Your task to perform on an android device: How do I get to the nearest grocery store? Image 0: 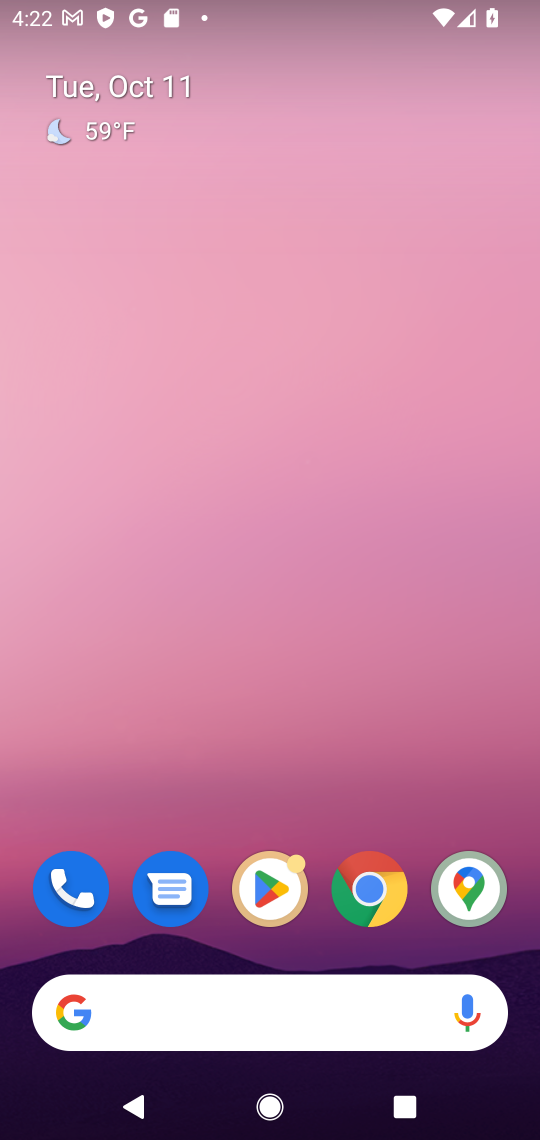
Step 0: drag from (300, 1013) to (300, 299)
Your task to perform on an android device: How do I get to the nearest grocery store? Image 1: 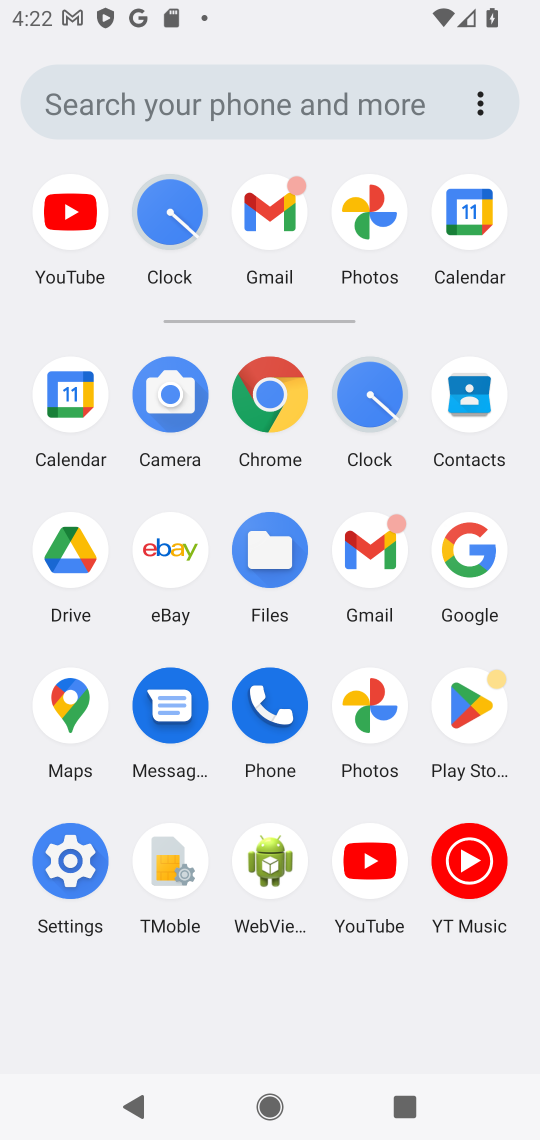
Step 1: click (469, 536)
Your task to perform on an android device: How do I get to the nearest grocery store? Image 2: 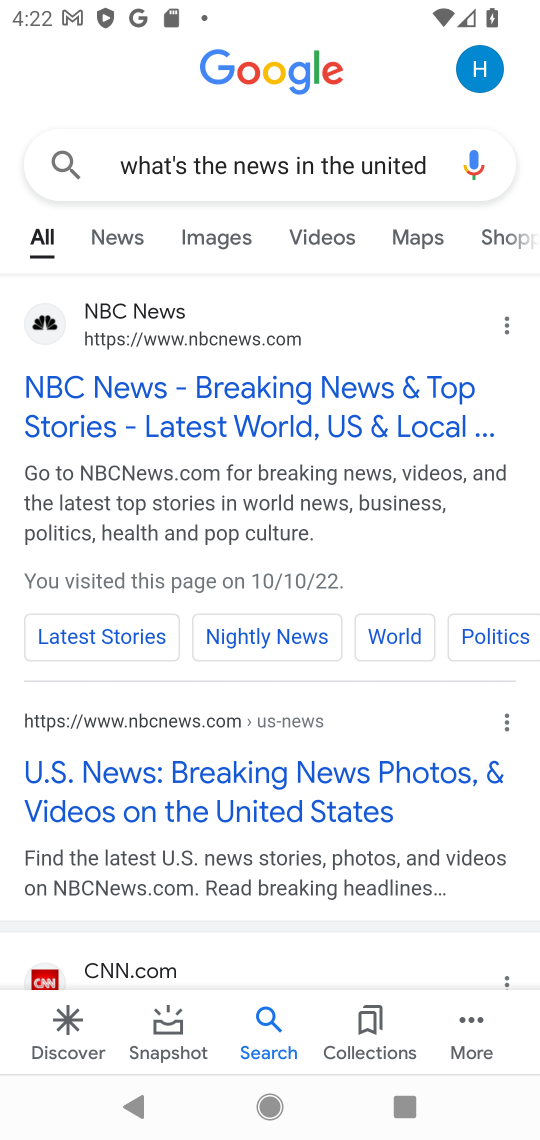
Step 2: click (254, 157)
Your task to perform on an android device: How do I get to the nearest grocery store? Image 3: 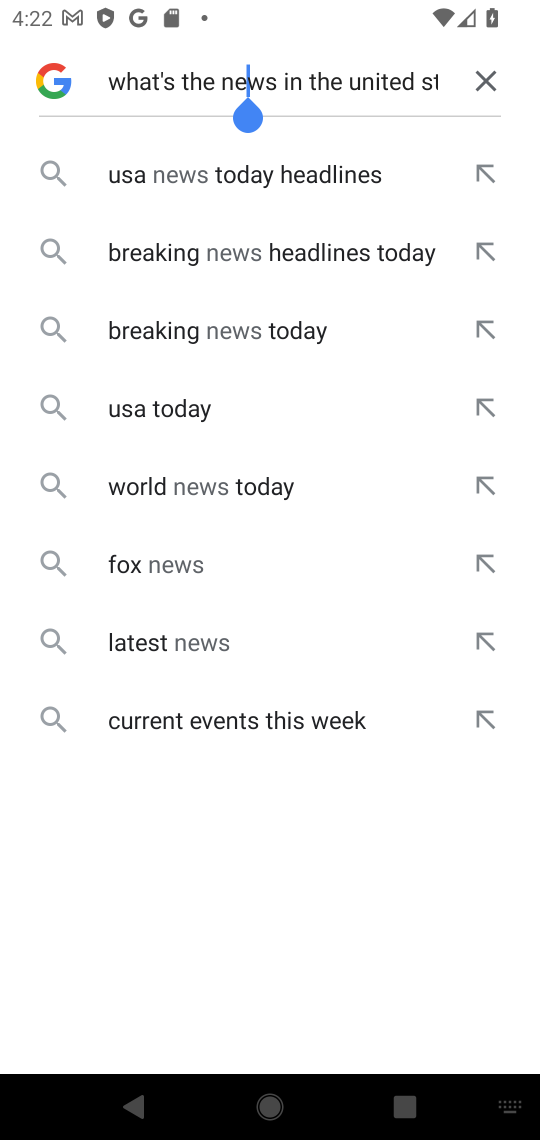
Step 3: click (490, 67)
Your task to perform on an android device: How do I get to the nearest grocery store? Image 4: 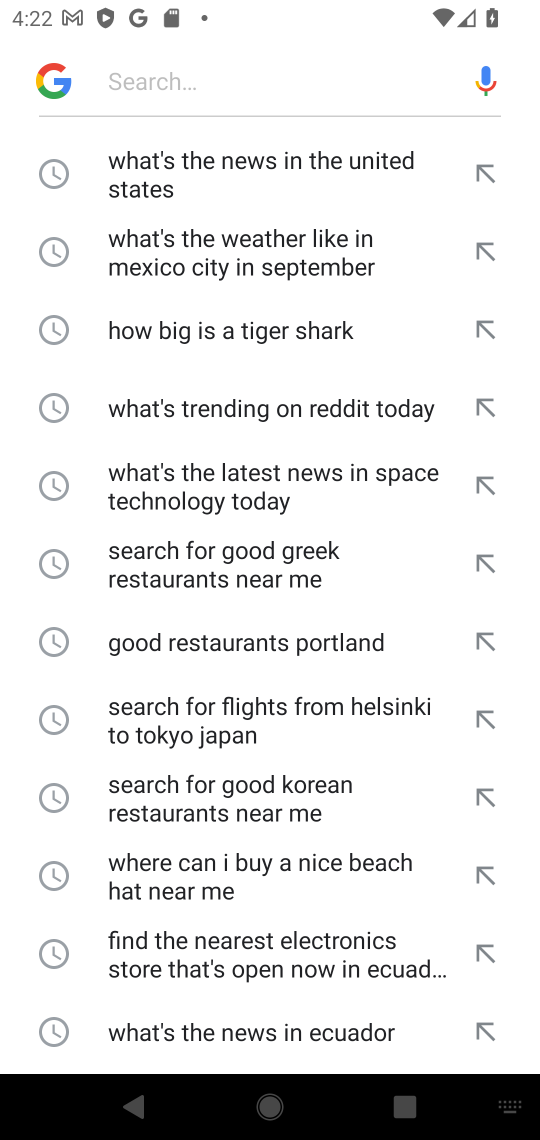
Step 4: click (120, 67)
Your task to perform on an android device: How do I get to the nearest grocery store? Image 5: 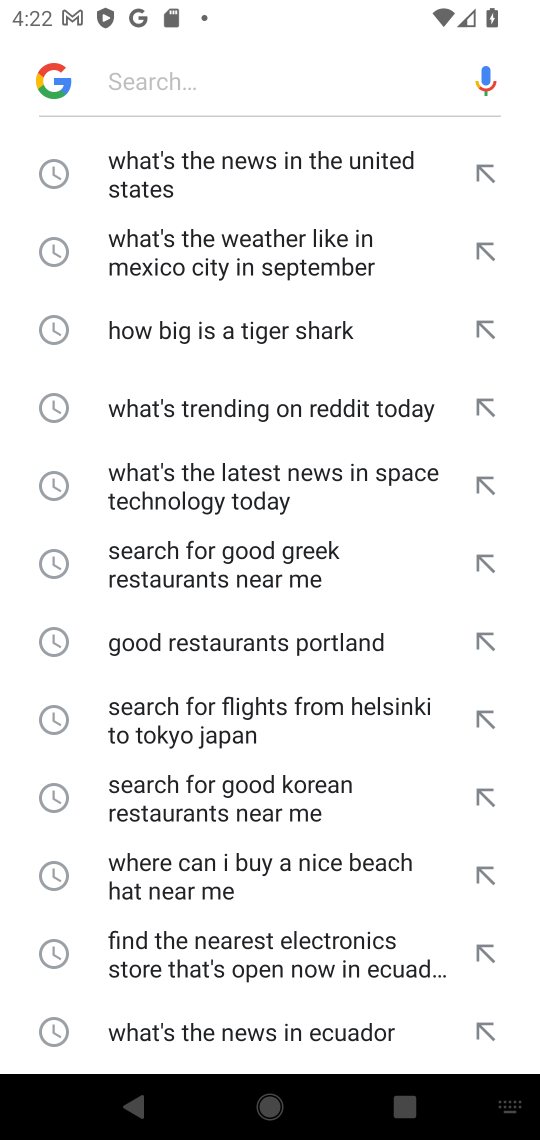
Step 5: type "How do I get to the nearest grocery store?"
Your task to perform on an android device: How do I get to the nearest grocery store? Image 6: 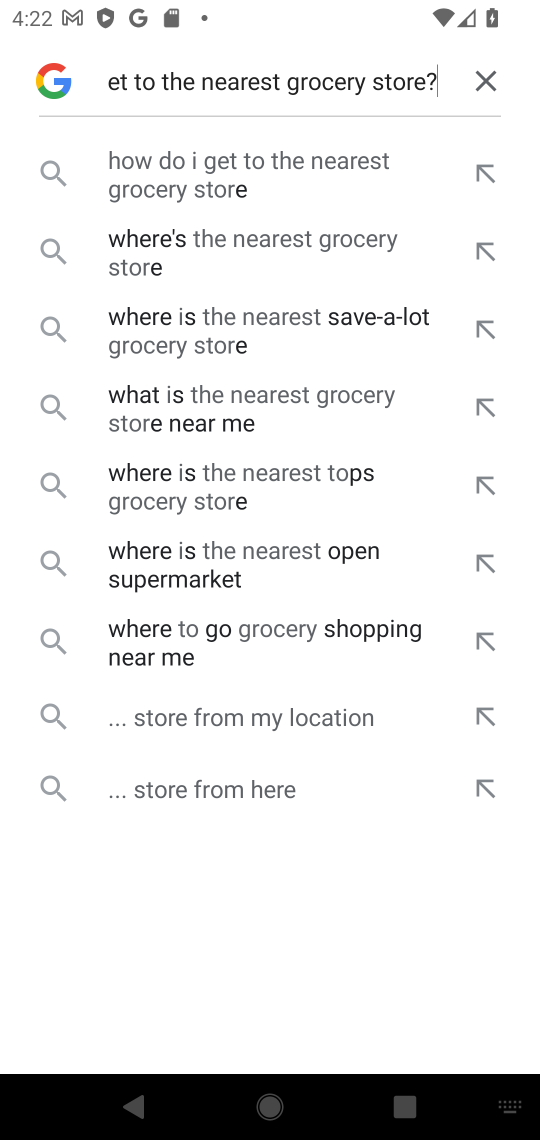
Step 6: type "How do I get to the nearest grocery store "
Your task to perform on an android device: How do I get to the nearest grocery store? Image 7: 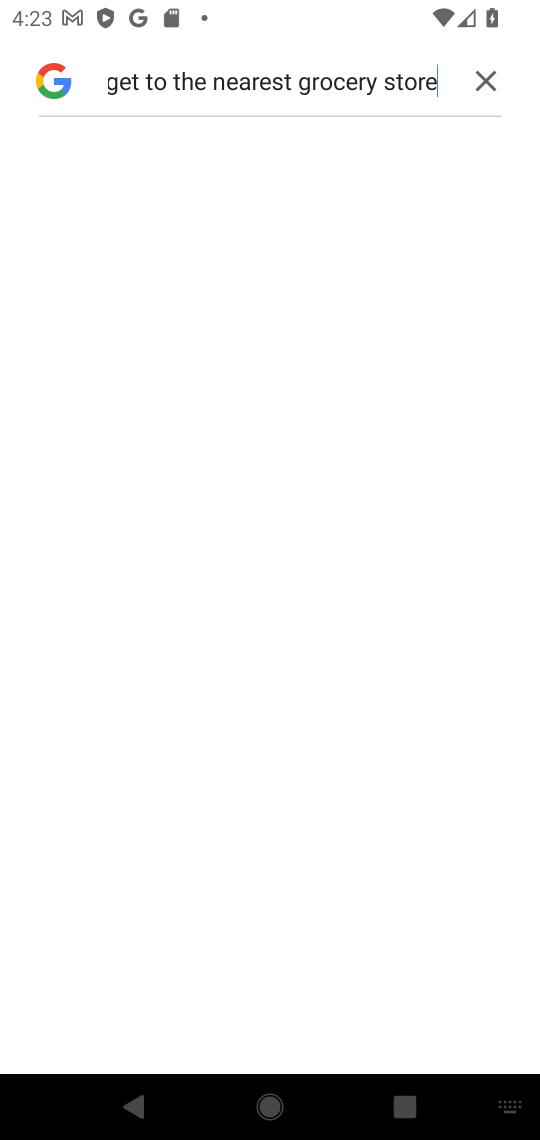
Step 7: click (232, 187)
Your task to perform on an android device: How do I get to the nearest grocery store? Image 8: 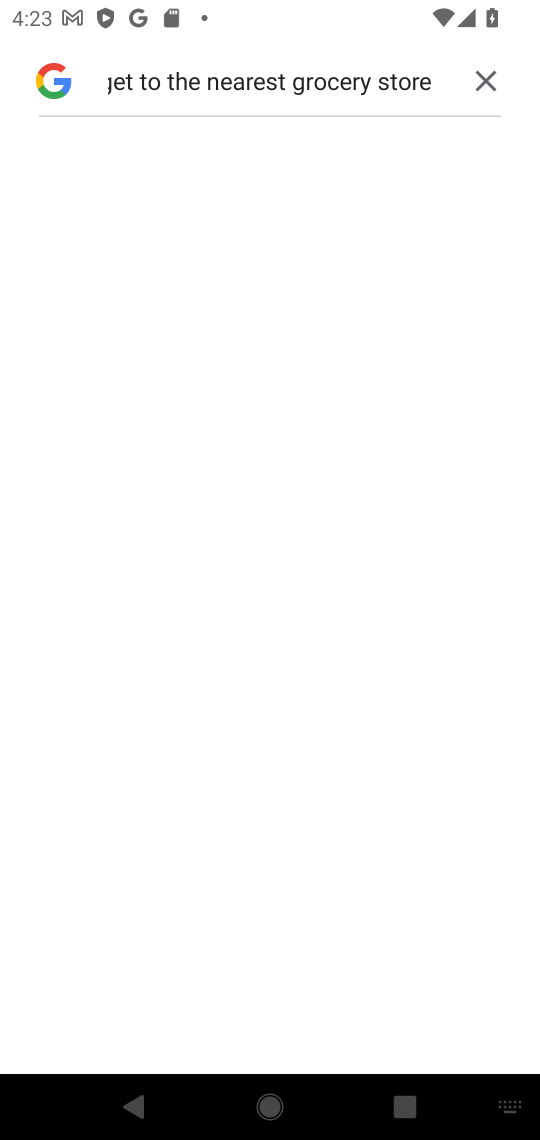
Step 8: click (405, 201)
Your task to perform on an android device: How do I get to the nearest grocery store? Image 9: 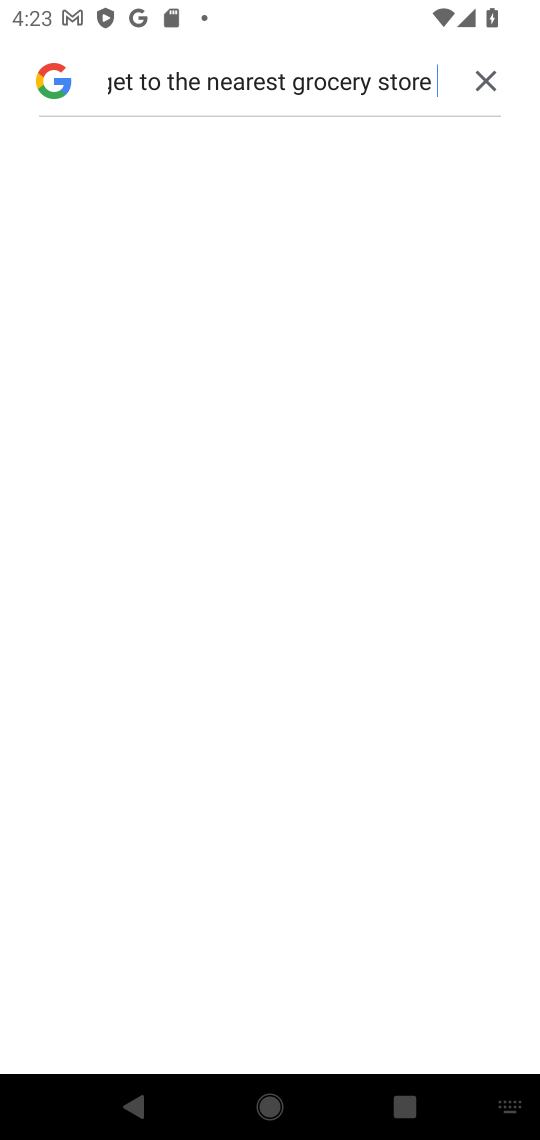
Step 9: click (311, 103)
Your task to perform on an android device: How do I get to the nearest grocery store? Image 10: 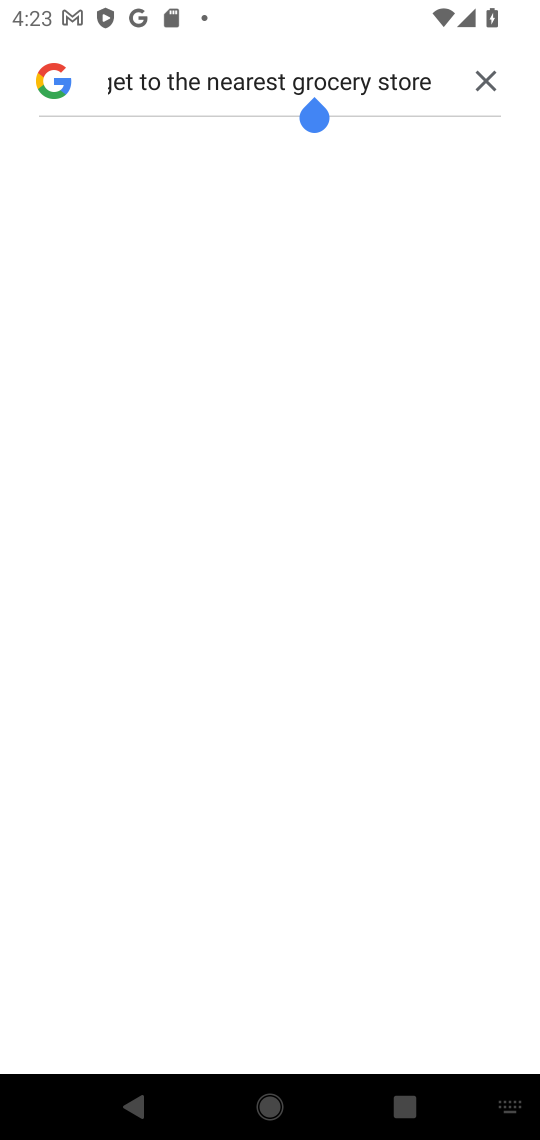
Step 10: click (486, 86)
Your task to perform on an android device: How do I get to the nearest grocery store? Image 11: 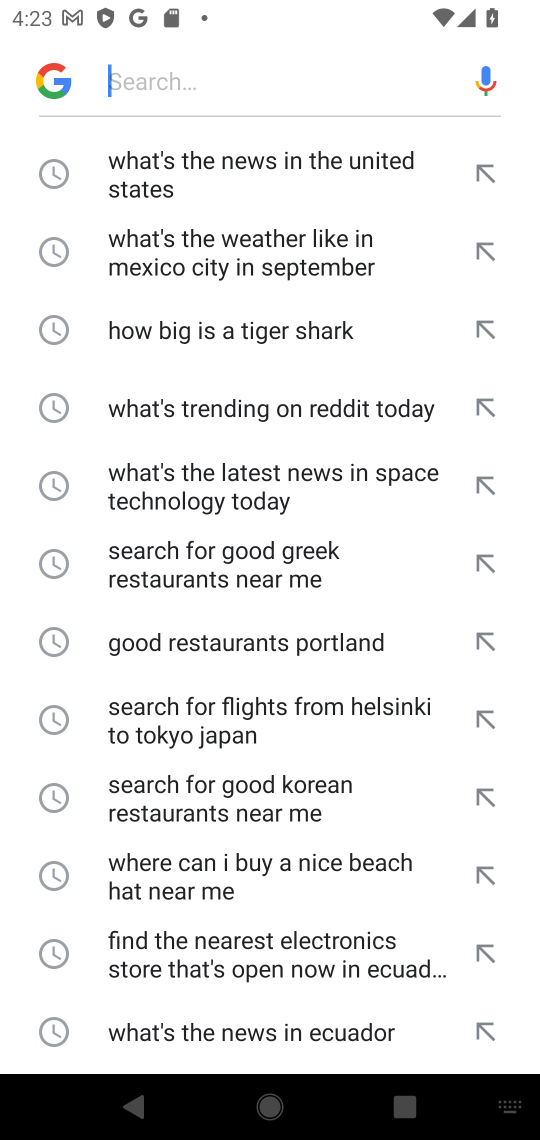
Step 11: click (248, 73)
Your task to perform on an android device: How do I get to the nearest grocery store? Image 12: 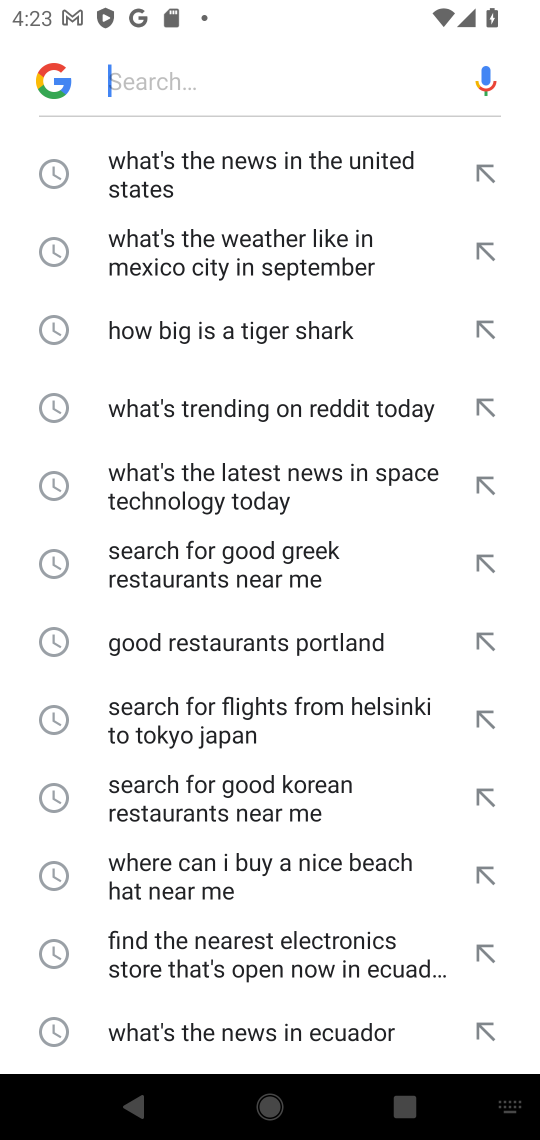
Step 12: type "the nearest grocery store "
Your task to perform on an android device: How do I get to the nearest grocery store? Image 13: 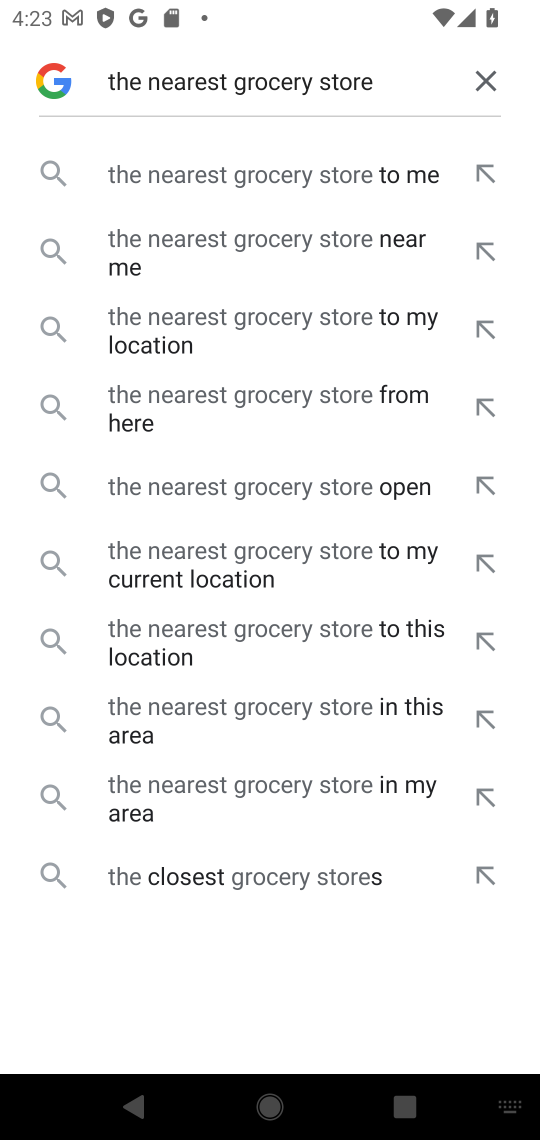
Step 13: click (252, 191)
Your task to perform on an android device: How do I get to the nearest grocery store? Image 14: 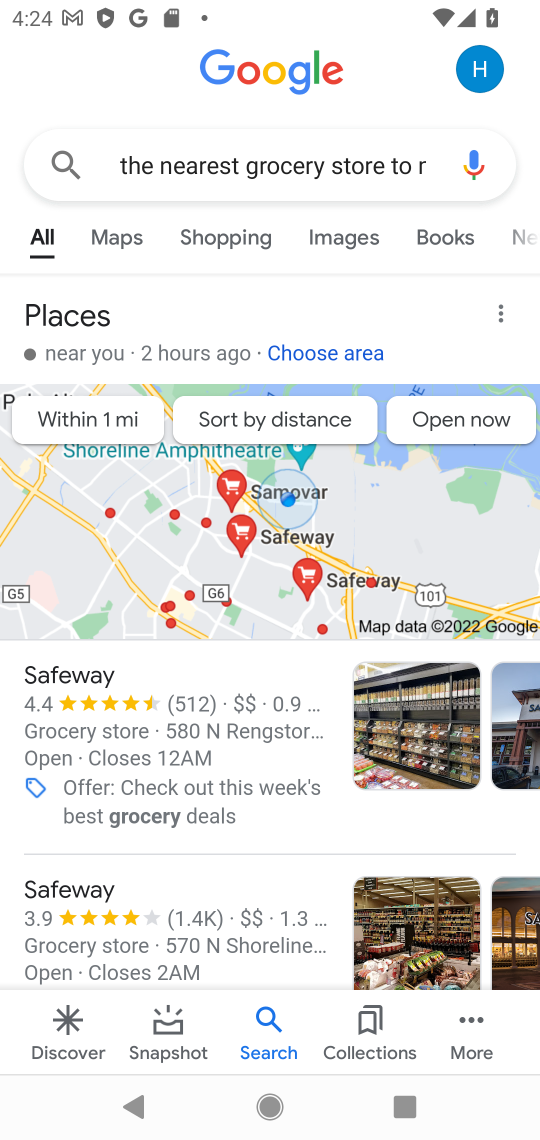
Step 14: drag from (220, 858) to (213, 362)
Your task to perform on an android device: How do I get to the nearest grocery store? Image 15: 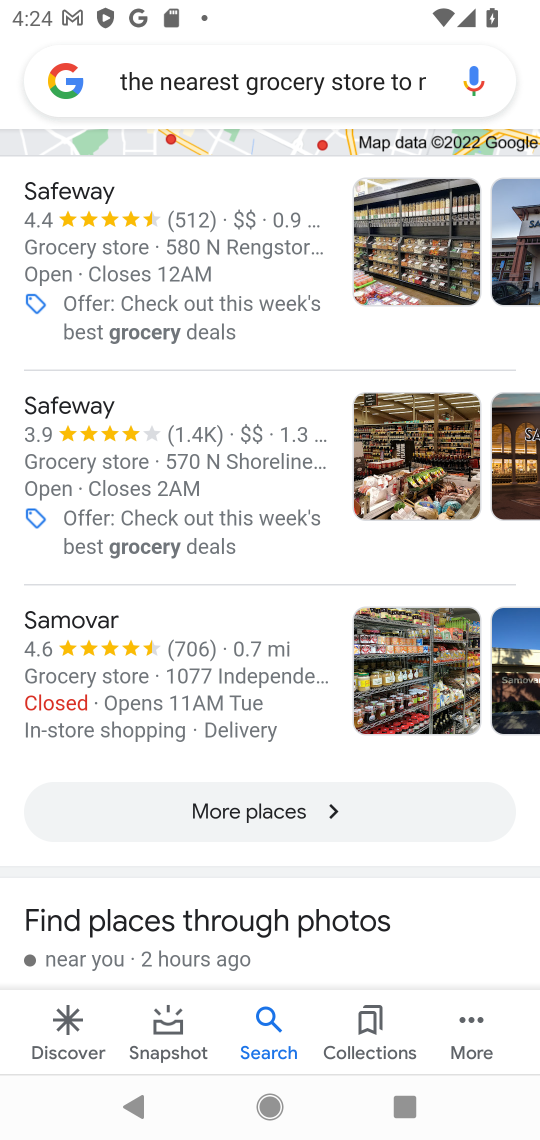
Step 15: drag from (205, 962) to (295, 285)
Your task to perform on an android device: How do I get to the nearest grocery store? Image 16: 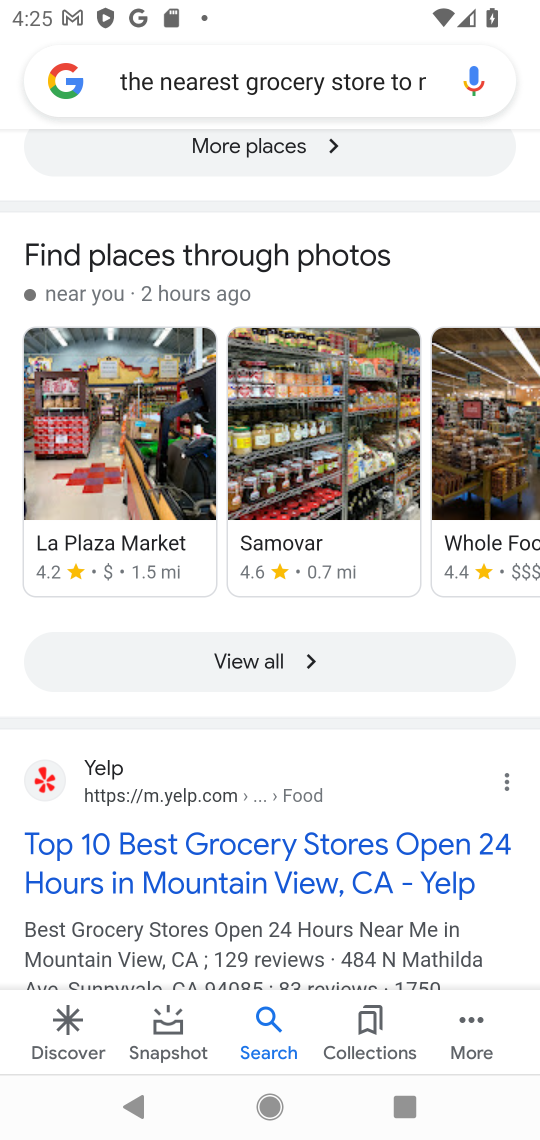
Step 16: click (324, 869)
Your task to perform on an android device: How do I get to the nearest grocery store? Image 17: 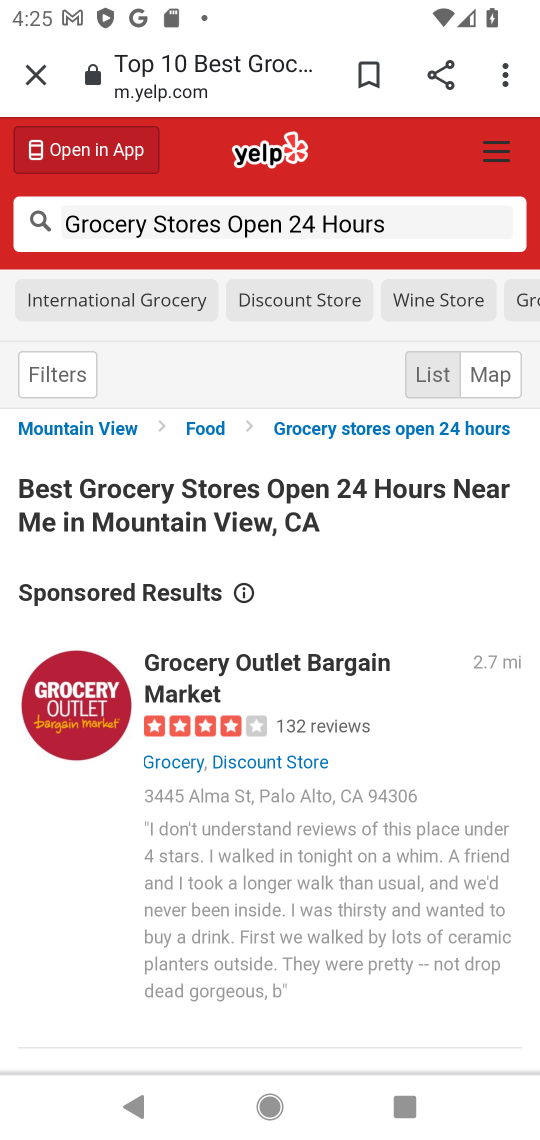
Step 17: task complete